Your task to perform on an android device: open app "Roku - Official Remote Control" (install if not already installed) Image 0: 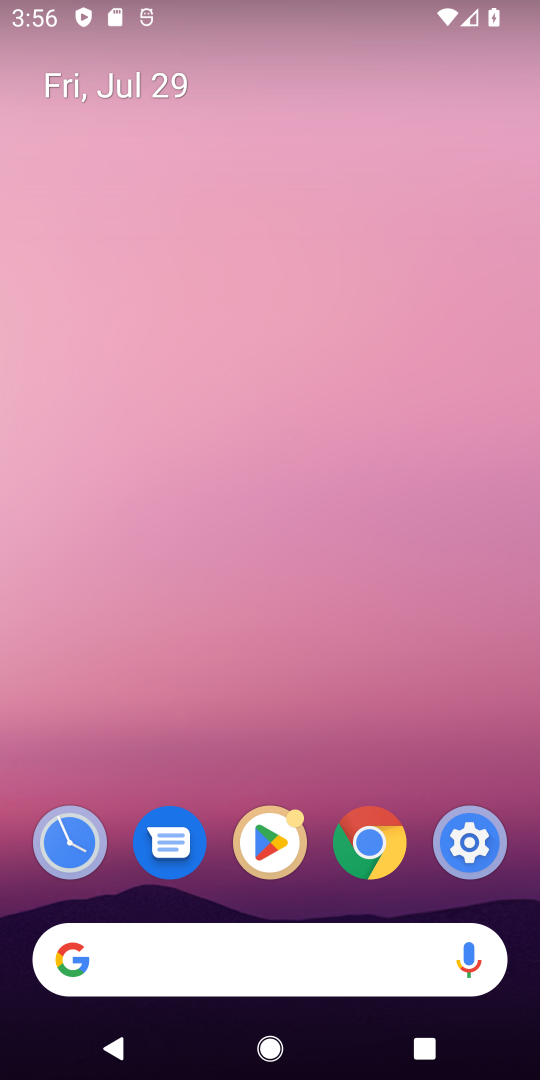
Step 0: click (276, 853)
Your task to perform on an android device: open app "Roku - Official Remote Control" (install if not already installed) Image 1: 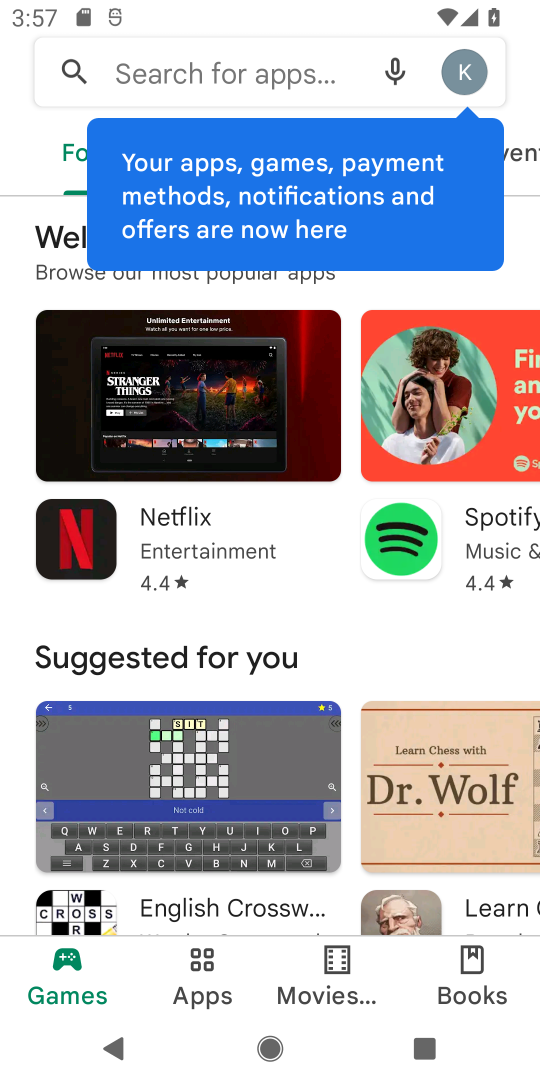
Step 1: click (181, 82)
Your task to perform on an android device: open app "Roku - Official Remote Control" (install if not already installed) Image 2: 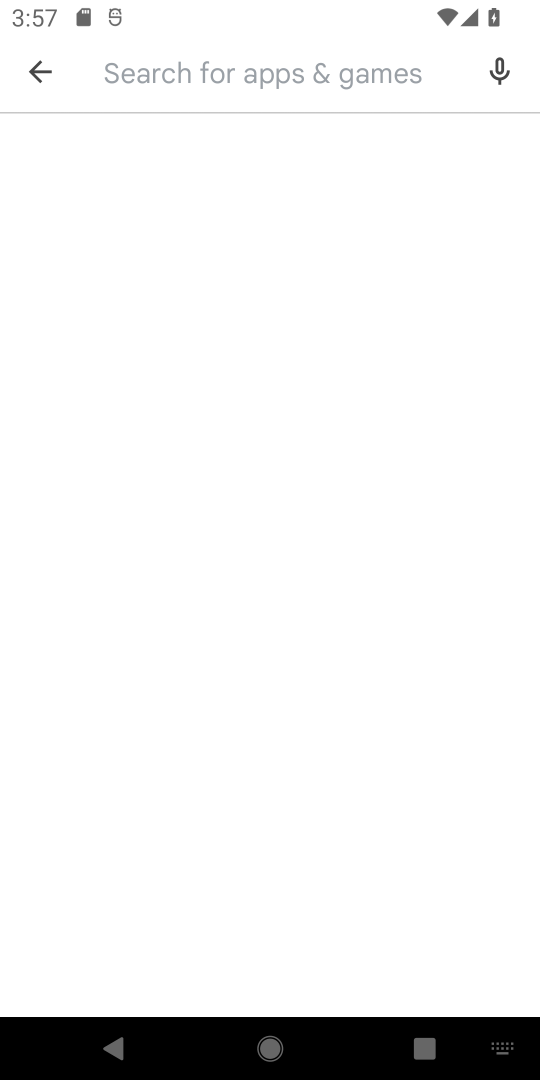
Step 2: type "roku"
Your task to perform on an android device: open app "Roku - Official Remote Control" (install if not already installed) Image 3: 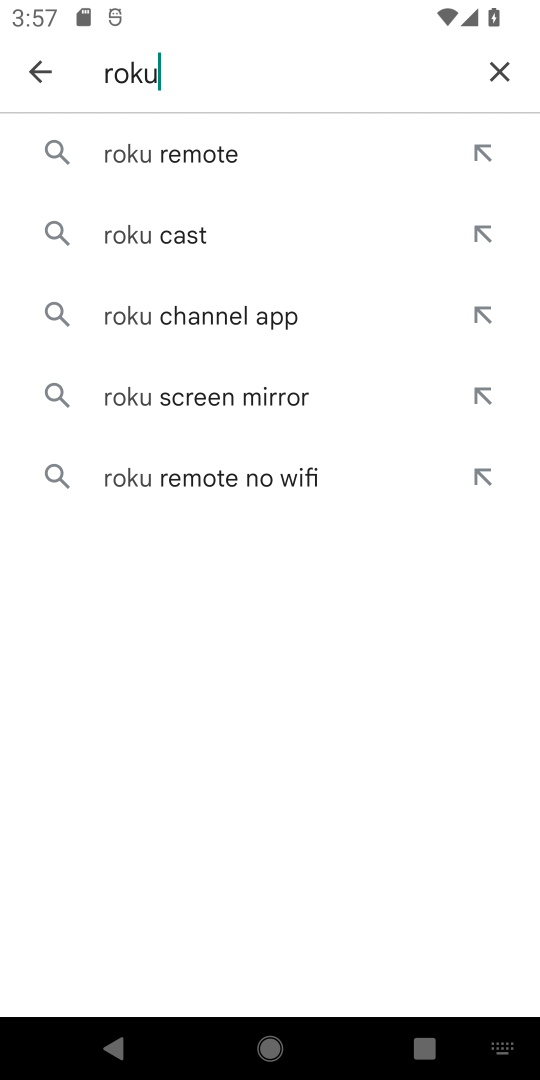
Step 3: click (225, 168)
Your task to perform on an android device: open app "Roku - Official Remote Control" (install if not already installed) Image 4: 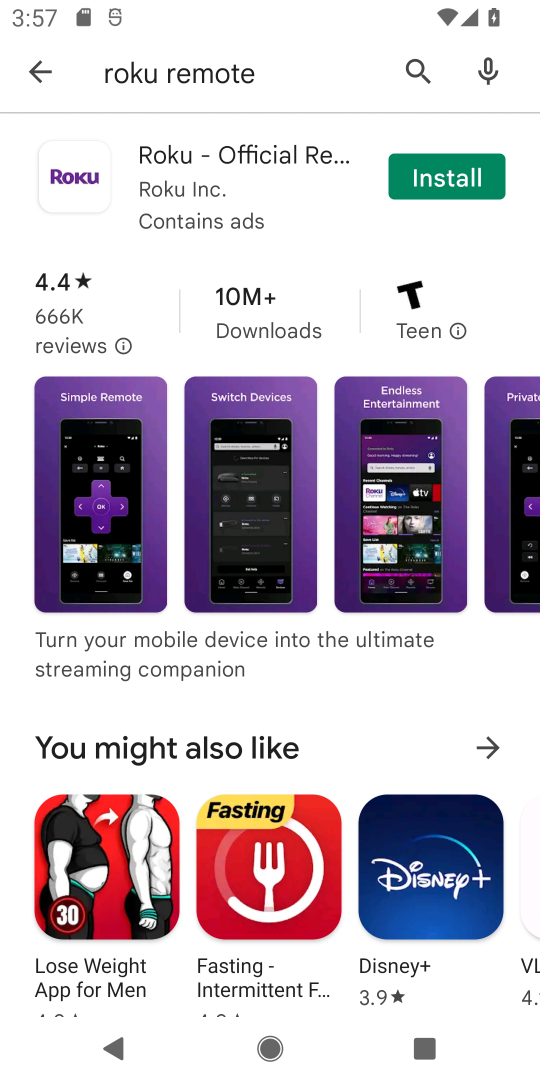
Step 4: click (429, 164)
Your task to perform on an android device: open app "Roku - Official Remote Control" (install if not already installed) Image 5: 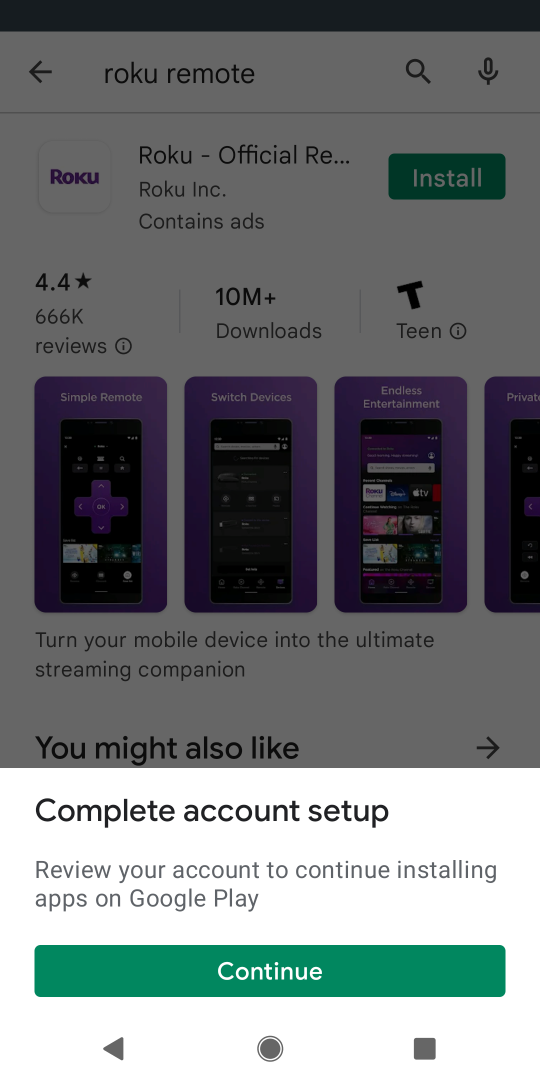
Step 5: click (190, 966)
Your task to perform on an android device: open app "Roku - Official Remote Control" (install if not already installed) Image 6: 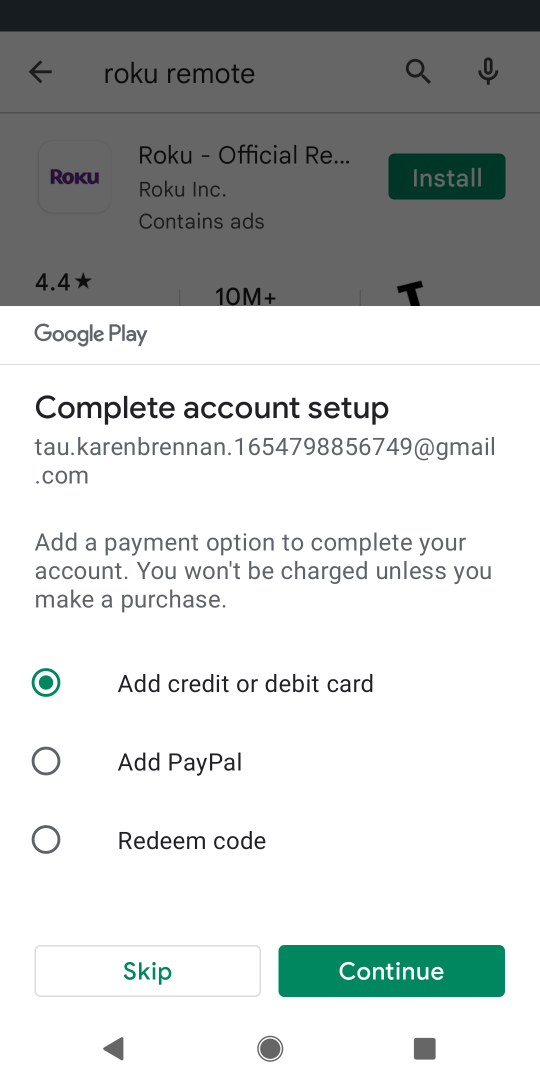
Step 6: click (164, 983)
Your task to perform on an android device: open app "Roku - Official Remote Control" (install if not already installed) Image 7: 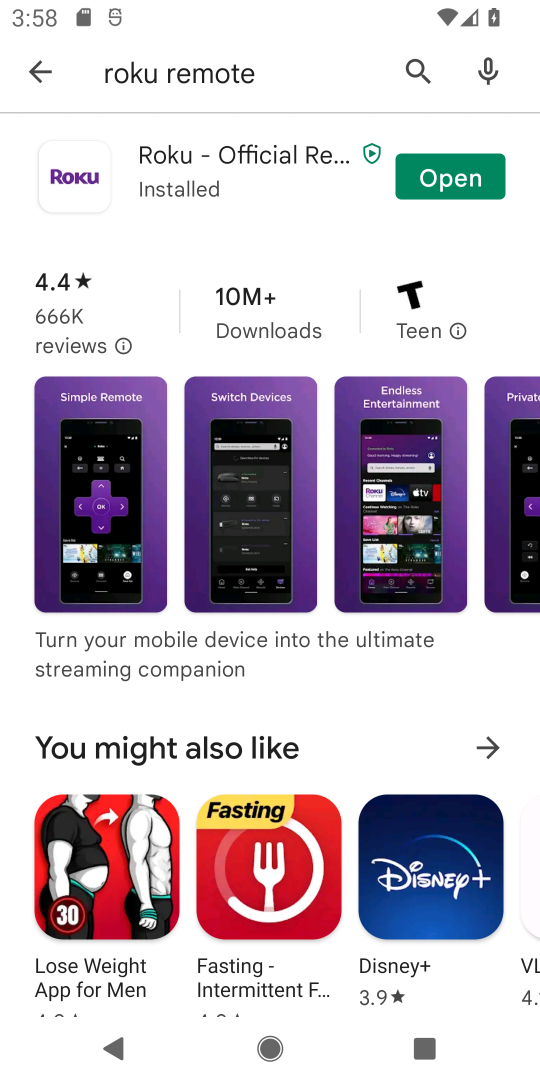
Step 7: click (480, 173)
Your task to perform on an android device: open app "Roku - Official Remote Control" (install if not already installed) Image 8: 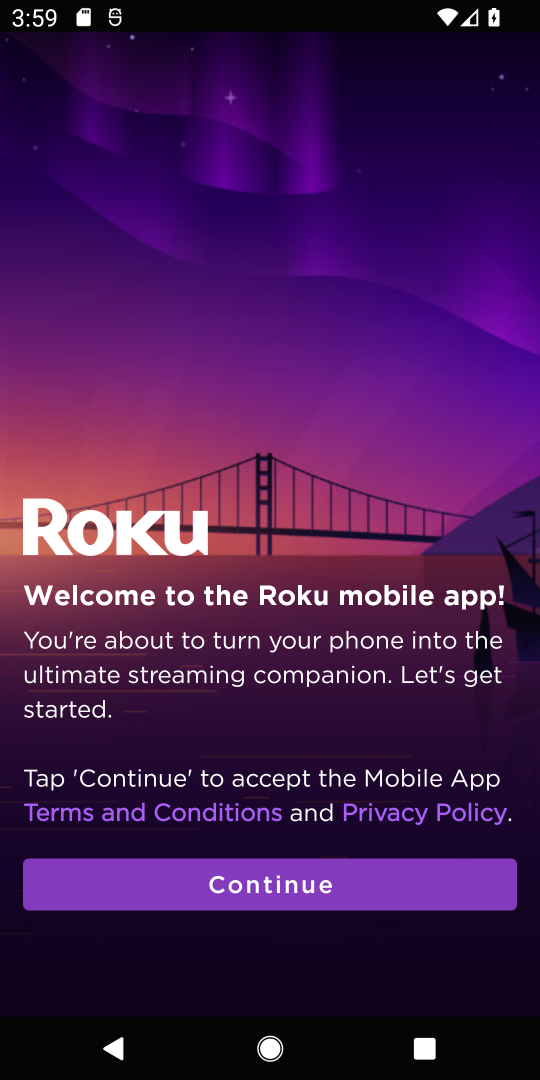
Step 8: task complete